Your task to perform on an android device: turn on bluetooth scan Image 0: 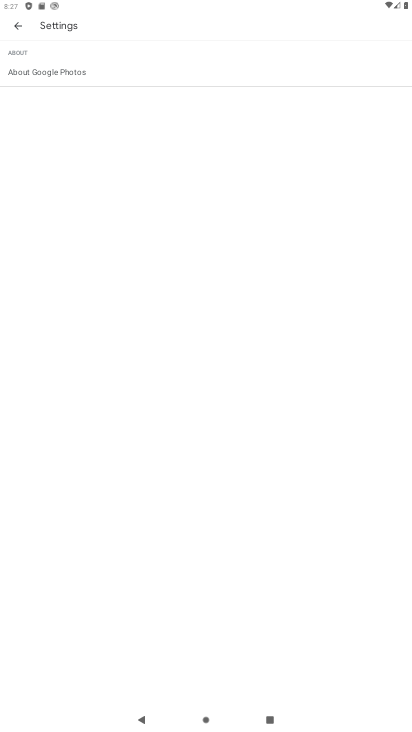
Step 0: press back button
Your task to perform on an android device: turn on bluetooth scan Image 1: 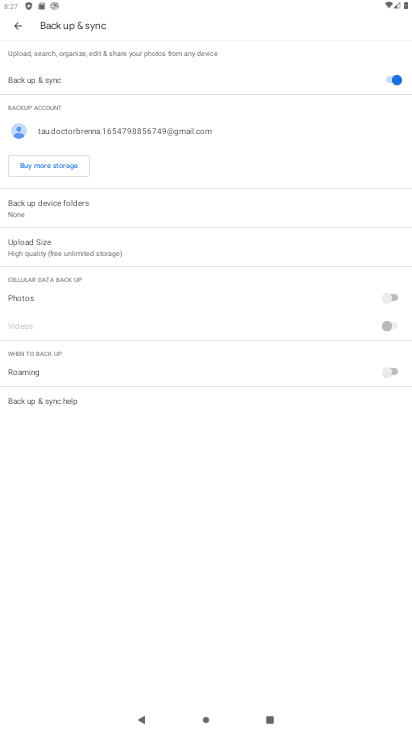
Step 1: click (19, 26)
Your task to perform on an android device: turn on bluetooth scan Image 2: 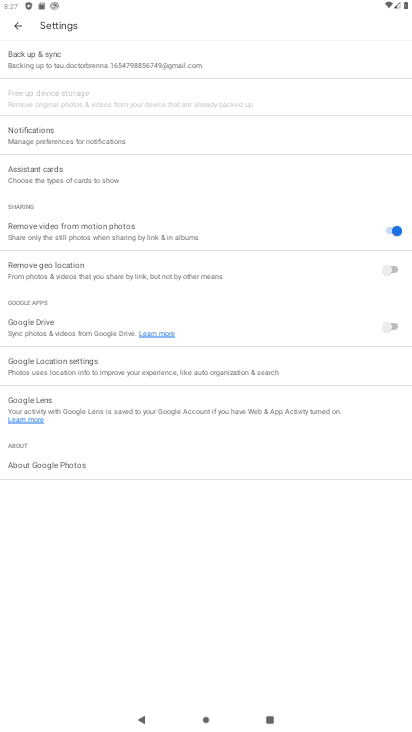
Step 2: click (17, 26)
Your task to perform on an android device: turn on bluetooth scan Image 3: 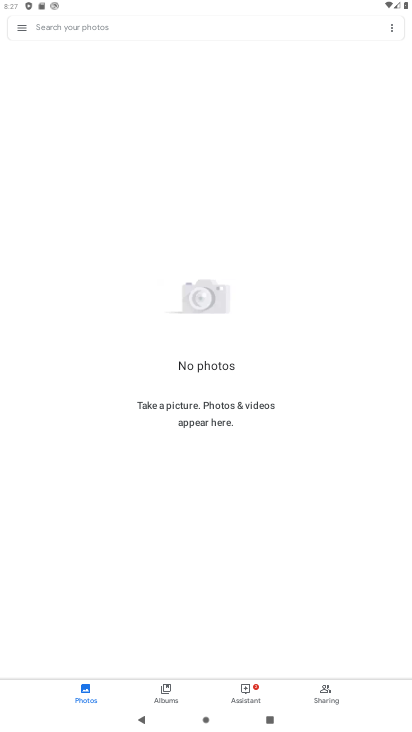
Step 3: press back button
Your task to perform on an android device: turn on bluetooth scan Image 4: 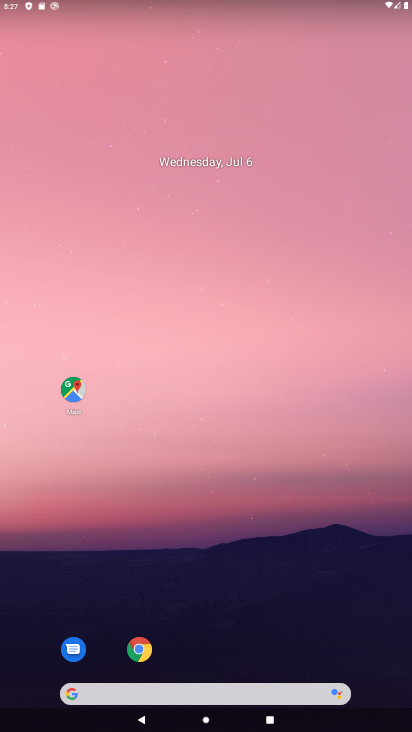
Step 4: drag from (208, 359) to (126, 96)
Your task to perform on an android device: turn on bluetooth scan Image 5: 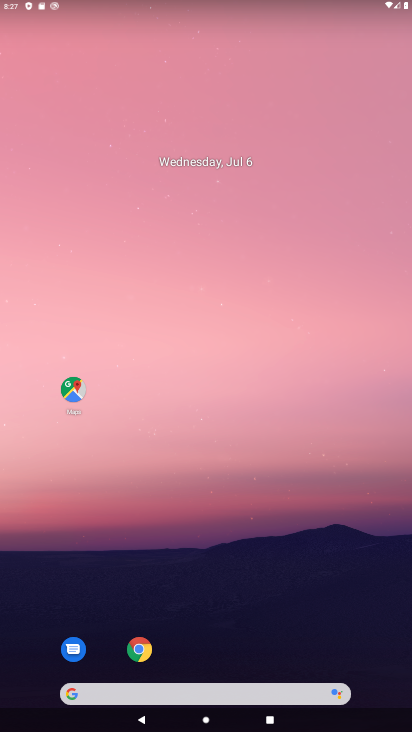
Step 5: drag from (267, 445) to (247, 141)
Your task to perform on an android device: turn on bluetooth scan Image 6: 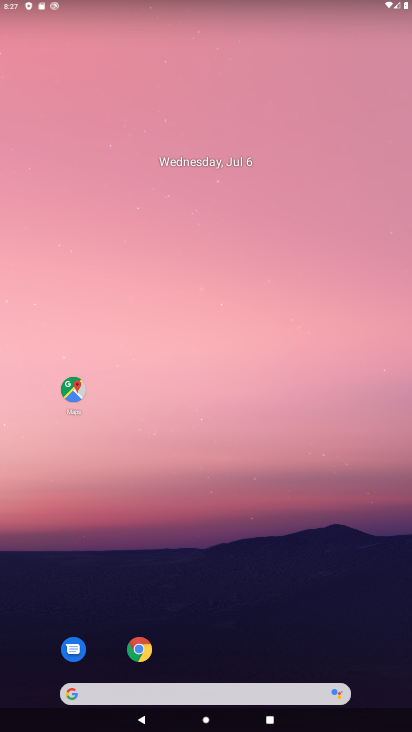
Step 6: drag from (282, 482) to (181, 14)
Your task to perform on an android device: turn on bluetooth scan Image 7: 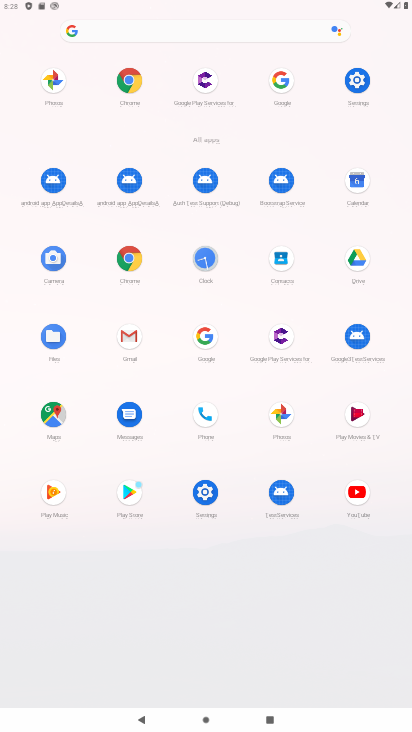
Step 7: click (363, 79)
Your task to perform on an android device: turn on bluetooth scan Image 8: 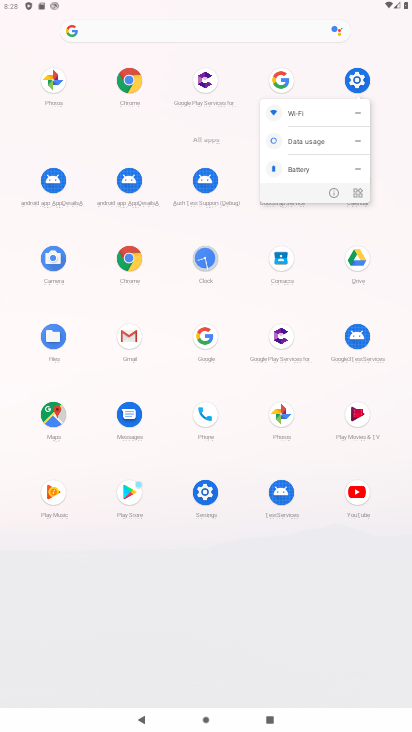
Step 8: click (354, 79)
Your task to perform on an android device: turn on bluetooth scan Image 9: 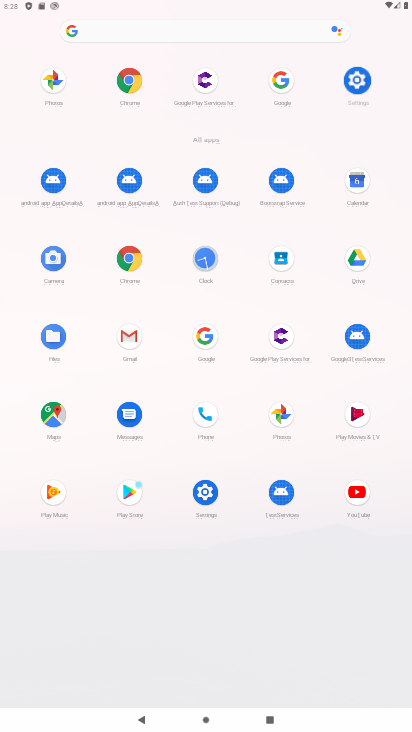
Step 9: click (354, 79)
Your task to perform on an android device: turn on bluetooth scan Image 10: 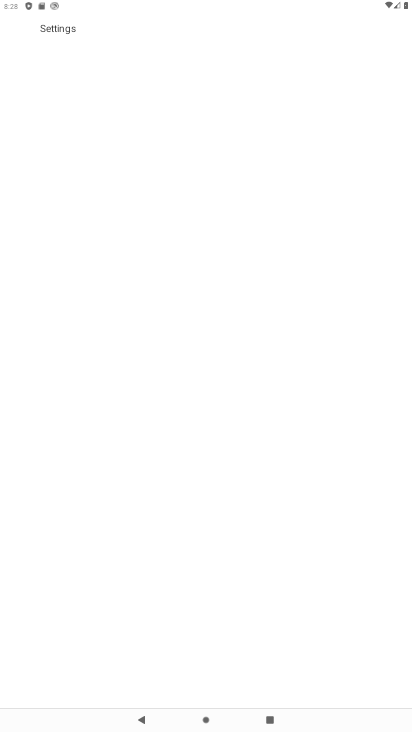
Step 10: click (355, 79)
Your task to perform on an android device: turn on bluetooth scan Image 11: 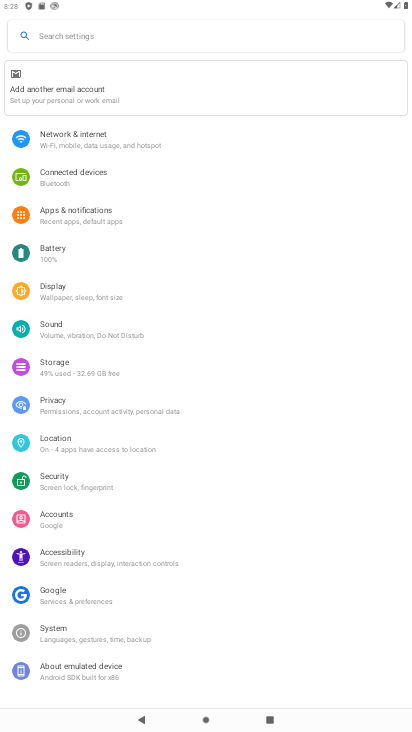
Step 11: click (79, 450)
Your task to perform on an android device: turn on bluetooth scan Image 12: 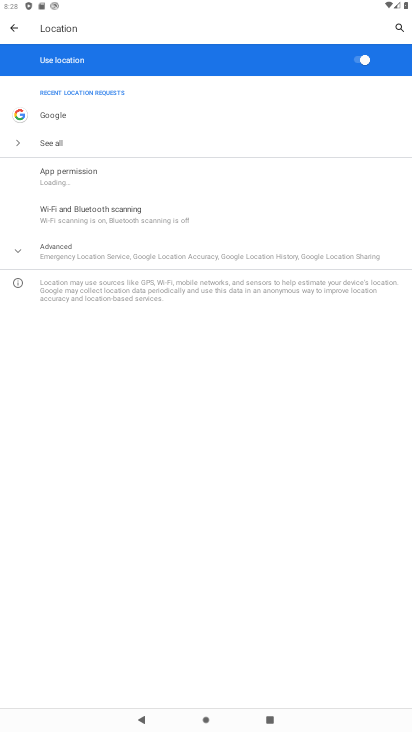
Step 12: click (101, 213)
Your task to perform on an android device: turn on bluetooth scan Image 13: 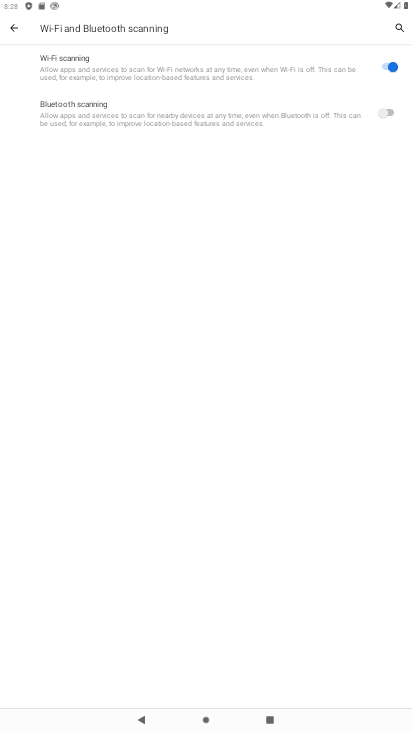
Step 13: click (388, 111)
Your task to perform on an android device: turn on bluetooth scan Image 14: 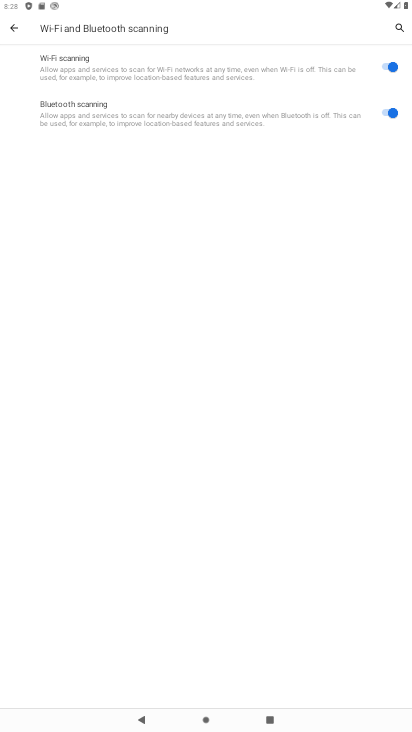
Step 14: task complete